Your task to perform on an android device: turn on showing notifications on the lock screen Image 0: 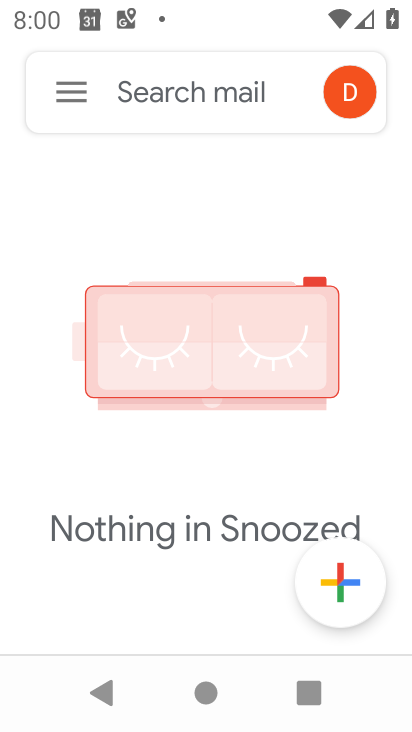
Step 0: press home button
Your task to perform on an android device: turn on showing notifications on the lock screen Image 1: 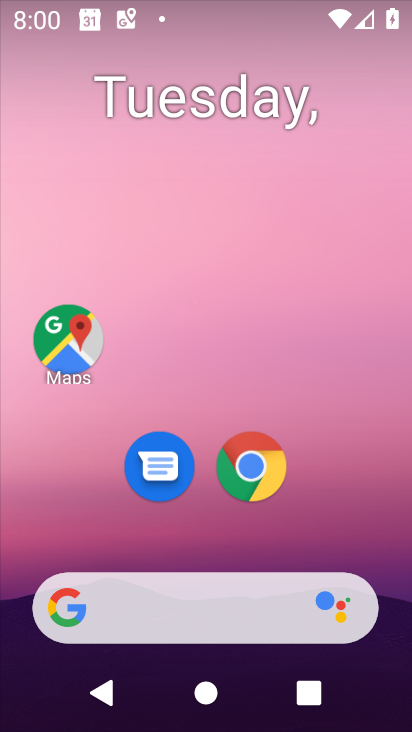
Step 1: drag from (348, 502) to (321, 116)
Your task to perform on an android device: turn on showing notifications on the lock screen Image 2: 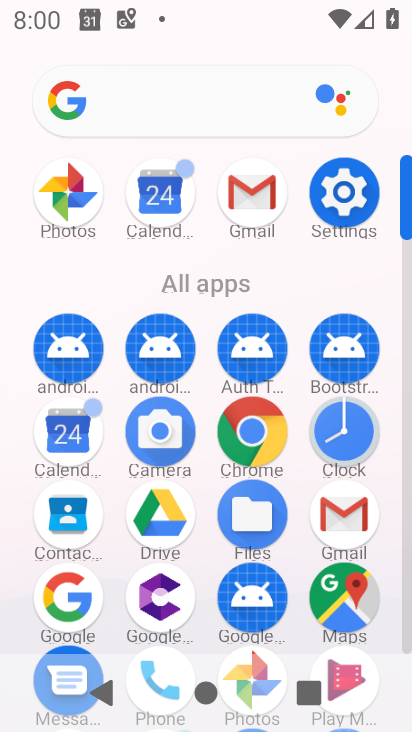
Step 2: click (352, 188)
Your task to perform on an android device: turn on showing notifications on the lock screen Image 3: 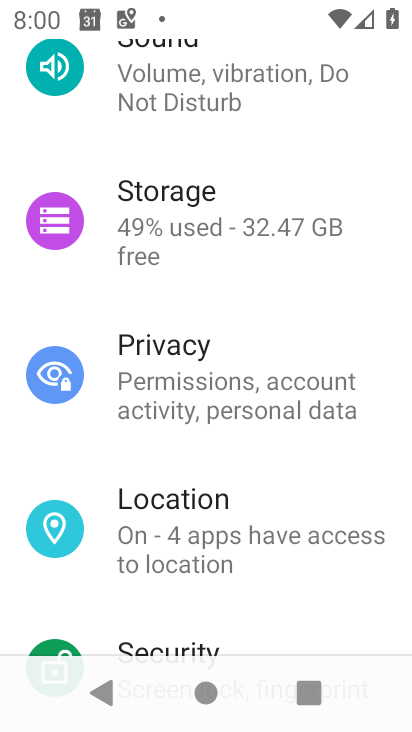
Step 3: drag from (217, 165) to (210, 558)
Your task to perform on an android device: turn on showing notifications on the lock screen Image 4: 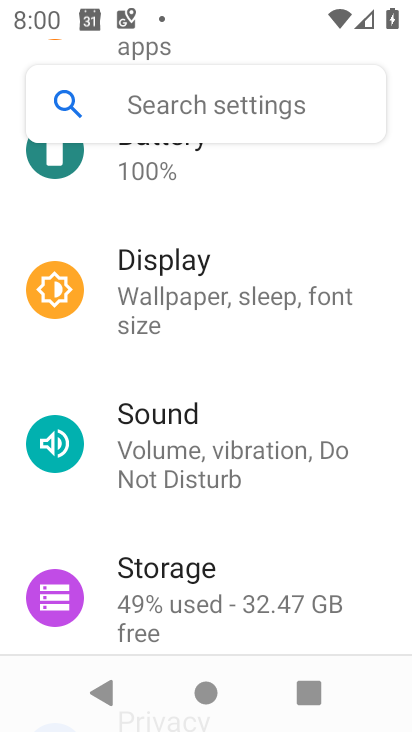
Step 4: drag from (195, 231) to (221, 463)
Your task to perform on an android device: turn on showing notifications on the lock screen Image 5: 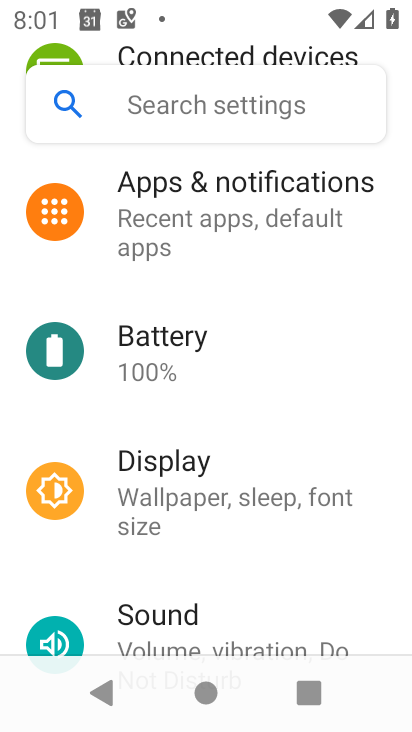
Step 5: click (191, 187)
Your task to perform on an android device: turn on showing notifications on the lock screen Image 6: 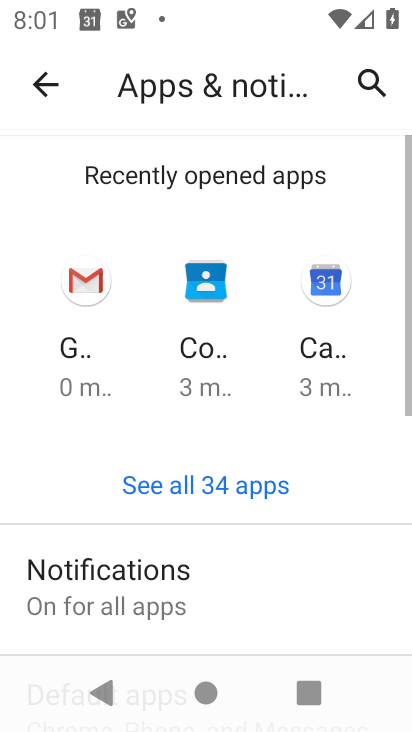
Step 6: drag from (179, 548) to (206, 122)
Your task to perform on an android device: turn on showing notifications on the lock screen Image 7: 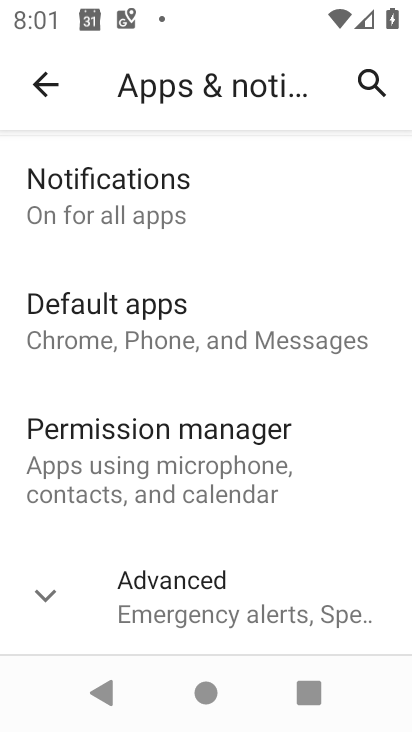
Step 7: click (194, 575)
Your task to perform on an android device: turn on showing notifications on the lock screen Image 8: 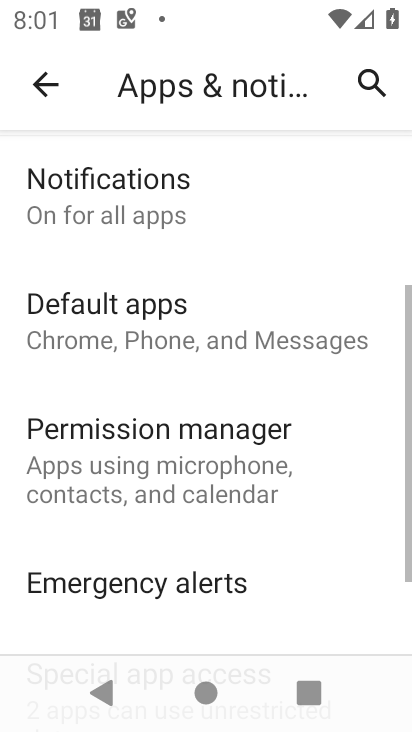
Step 8: drag from (194, 575) to (210, 265)
Your task to perform on an android device: turn on showing notifications on the lock screen Image 9: 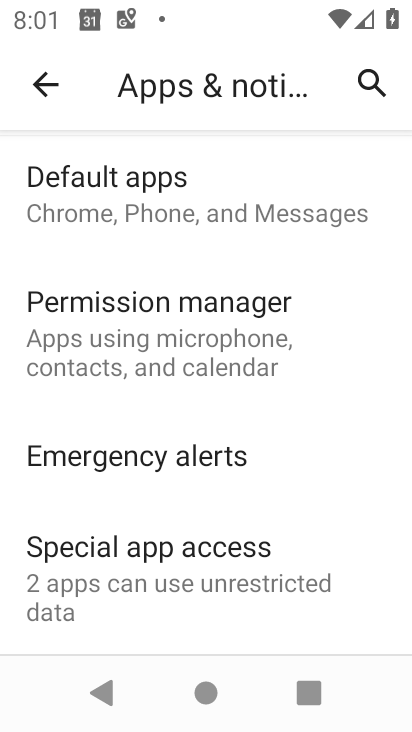
Step 9: drag from (203, 227) to (204, 486)
Your task to perform on an android device: turn on showing notifications on the lock screen Image 10: 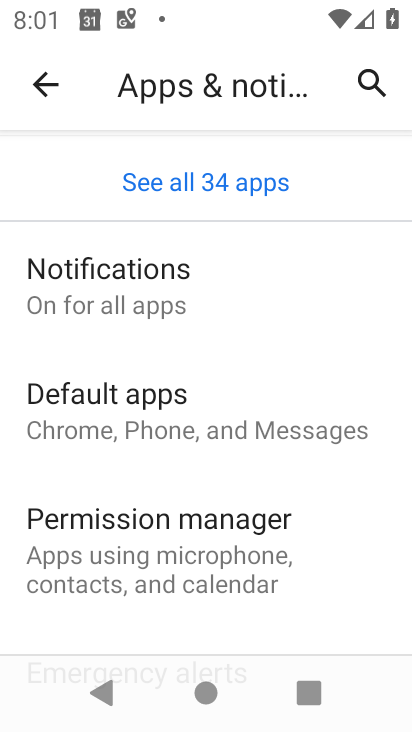
Step 10: click (173, 336)
Your task to perform on an android device: turn on showing notifications on the lock screen Image 11: 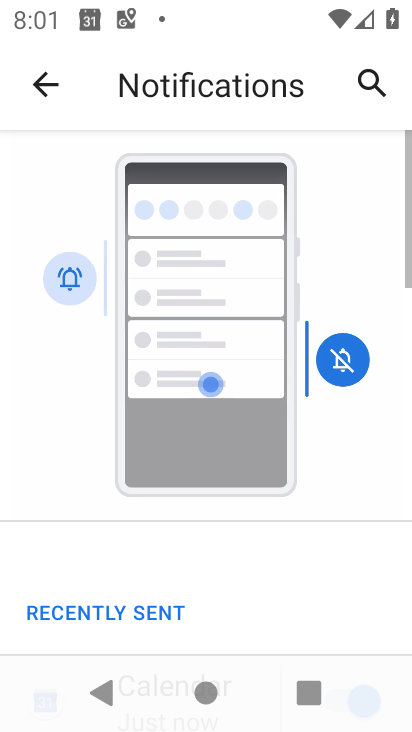
Step 11: drag from (167, 547) to (238, 111)
Your task to perform on an android device: turn on showing notifications on the lock screen Image 12: 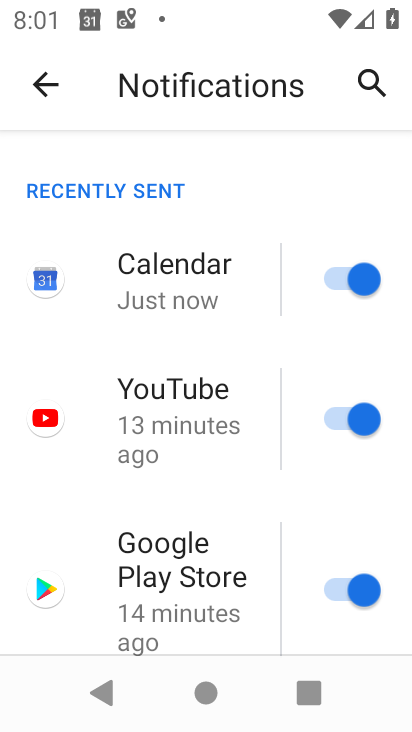
Step 12: drag from (158, 492) to (188, 238)
Your task to perform on an android device: turn on showing notifications on the lock screen Image 13: 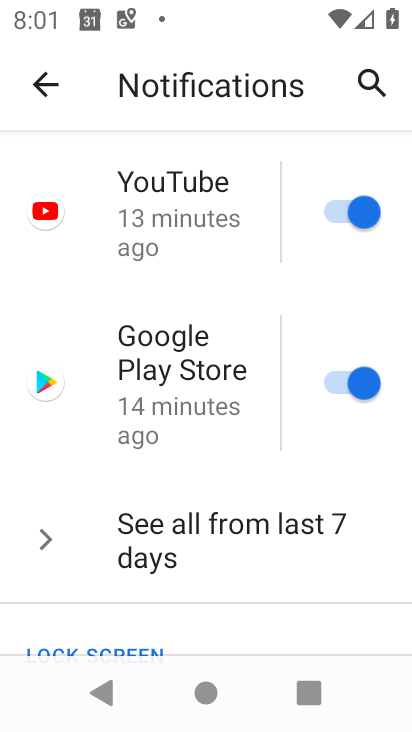
Step 13: drag from (203, 618) to (218, 328)
Your task to perform on an android device: turn on showing notifications on the lock screen Image 14: 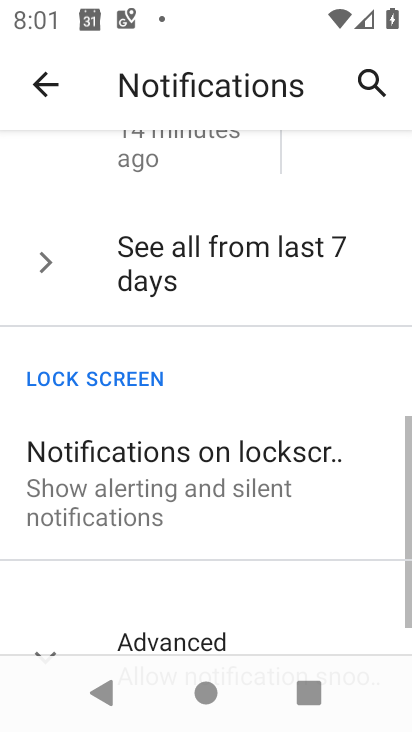
Step 14: drag from (218, 328) to (218, 279)
Your task to perform on an android device: turn on showing notifications on the lock screen Image 15: 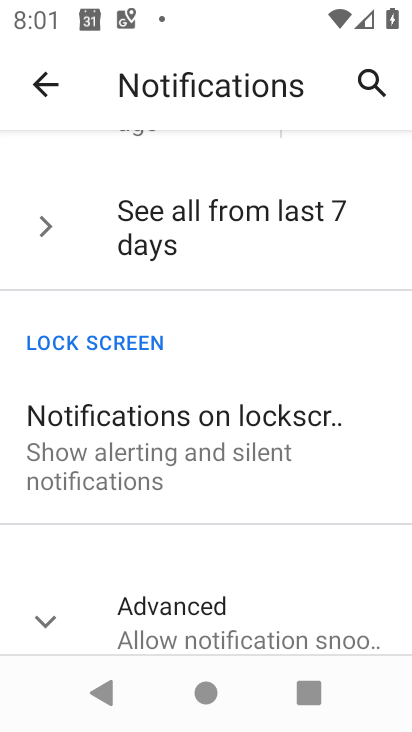
Step 15: drag from (205, 532) to (214, 248)
Your task to perform on an android device: turn on showing notifications on the lock screen Image 16: 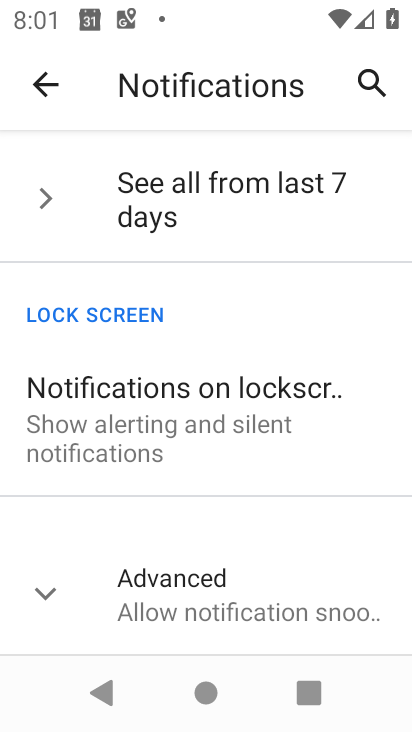
Step 16: click (171, 553)
Your task to perform on an android device: turn on showing notifications on the lock screen Image 17: 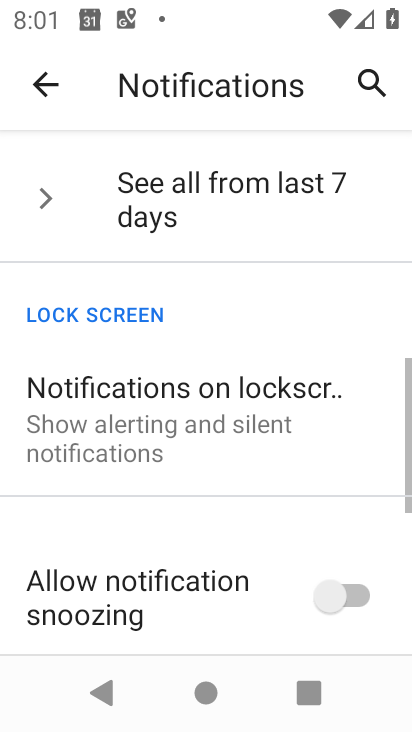
Step 17: drag from (208, 512) to (207, 350)
Your task to perform on an android device: turn on showing notifications on the lock screen Image 18: 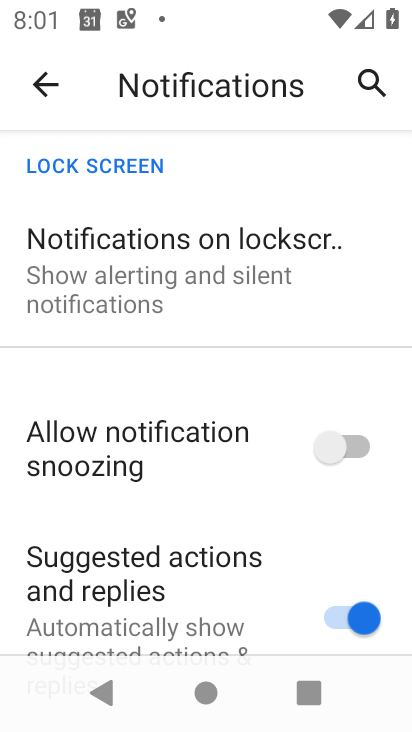
Step 18: click (180, 261)
Your task to perform on an android device: turn on showing notifications on the lock screen Image 19: 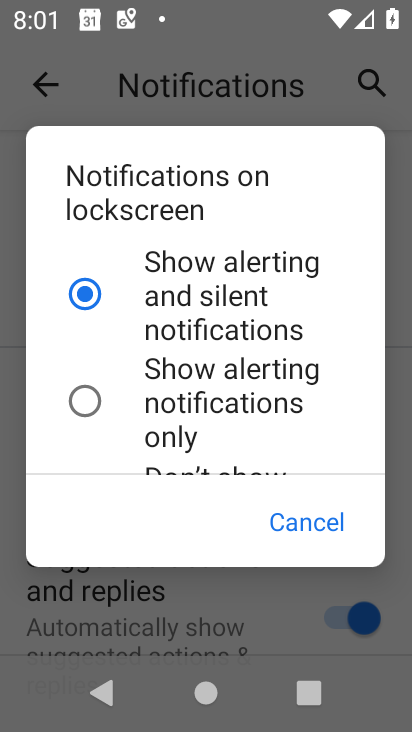
Step 19: click (143, 387)
Your task to perform on an android device: turn on showing notifications on the lock screen Image 20: 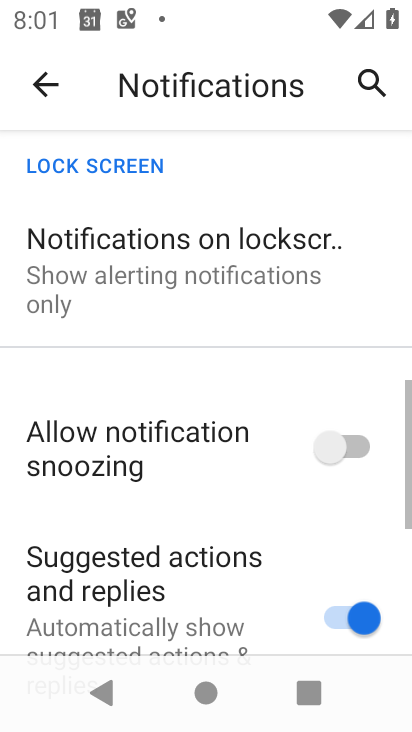
Step 20: task complete